Your task to perform on an android device: allow notifications from all sites in the chrome app Image 0: 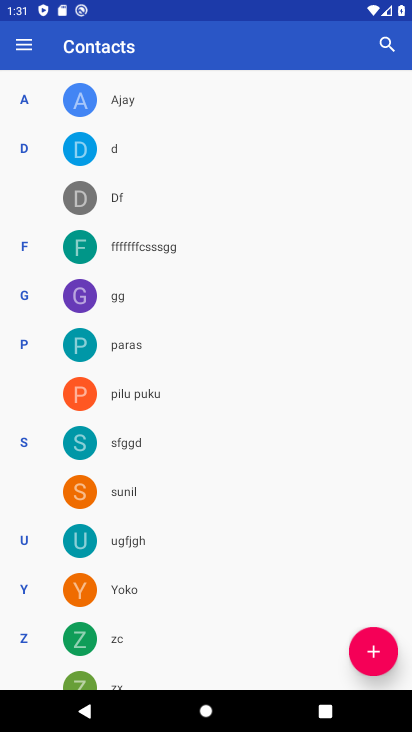
Step 0: press home button
Your task to perform on an android device: allow notifications from all sites in the chrome app Image 1: 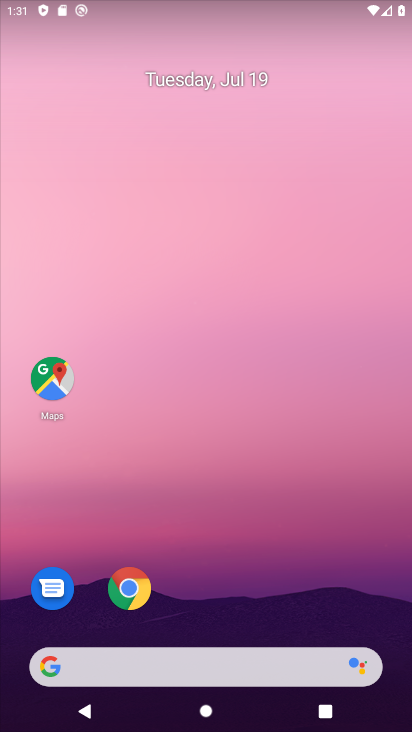
Step 1: click (125, 605)
Your task to perform on an android device: allow notifications from all sites in the chrome app Image 2: 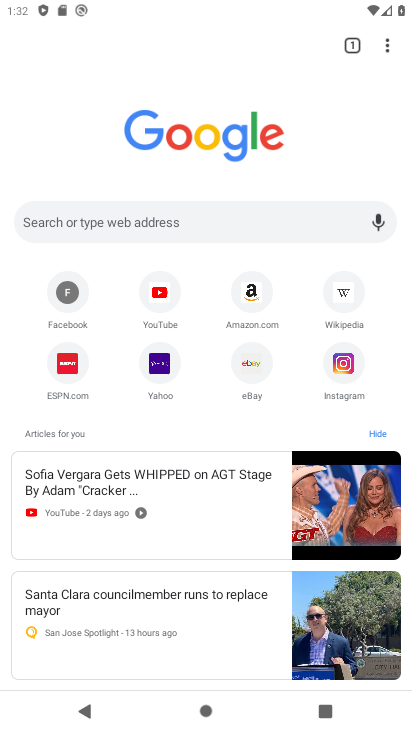
Step 2: click (390, 47)
Your task to perform on an android device: allow notifications from all sites in the chrome app Image 3: 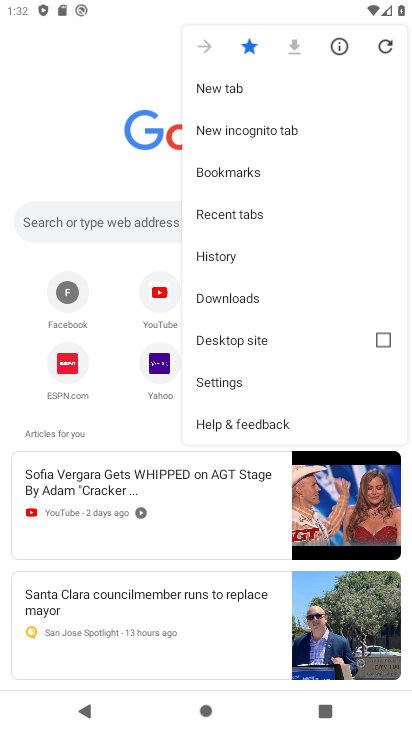
Step 3: click (228, 373)
Your task to perform on an android device: allow notifications from all sites in the chrome app Image 4: 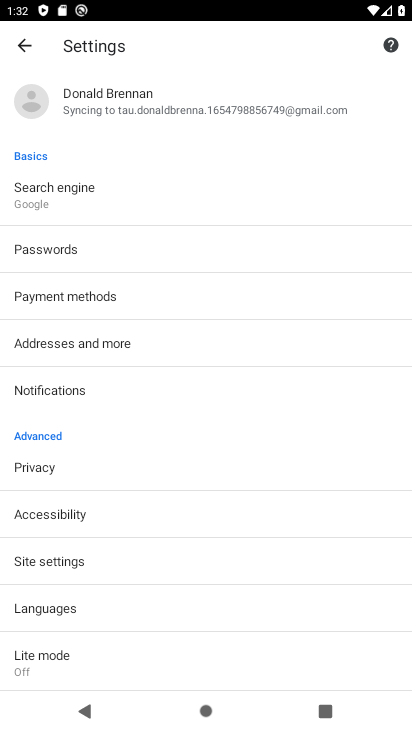
Step 4: click (70, 390)
Your task to perform on an android device: allow notifications from all sites in the chrome app Image 5: 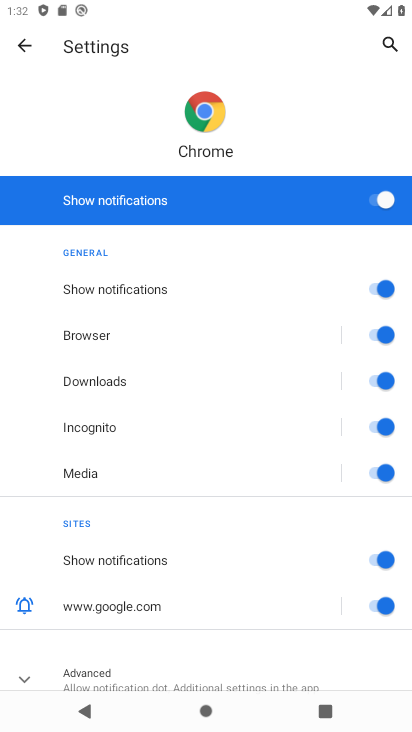
Step 5: task complete